Your task to perform on an android device: open wifi settings Image 0: 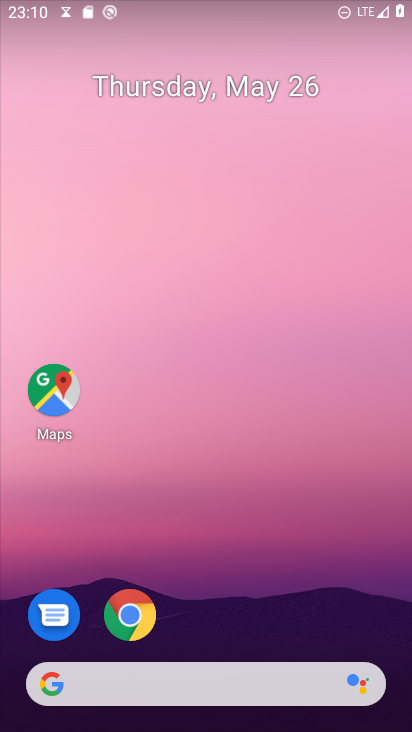
Step 0: drag from (235, 621) to (186, 206)
Your task to perform on an android device: open wifi settings Image 1: 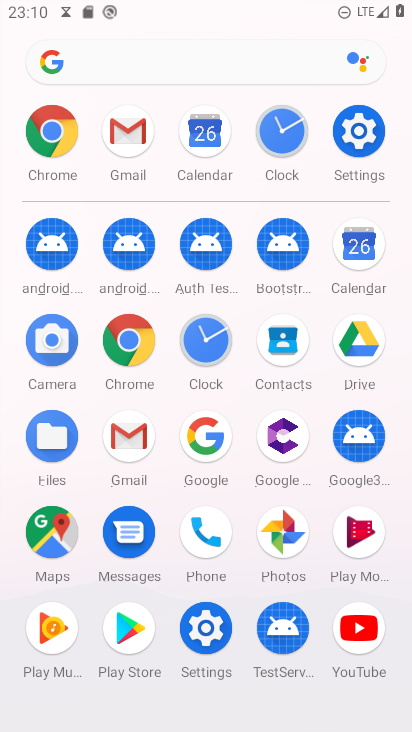
Step 1: click (358, 119)
Your task to perform on an android device: open wifi settings Image 2: 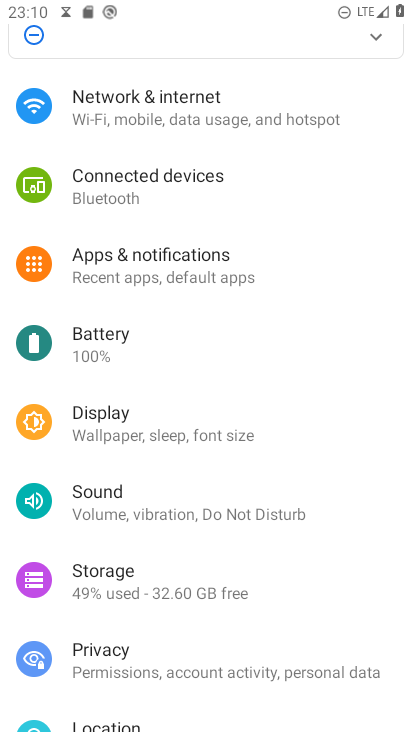
Step 2: click (162, 104)
Your task to perform on an android device: open wifi settings Image 3: 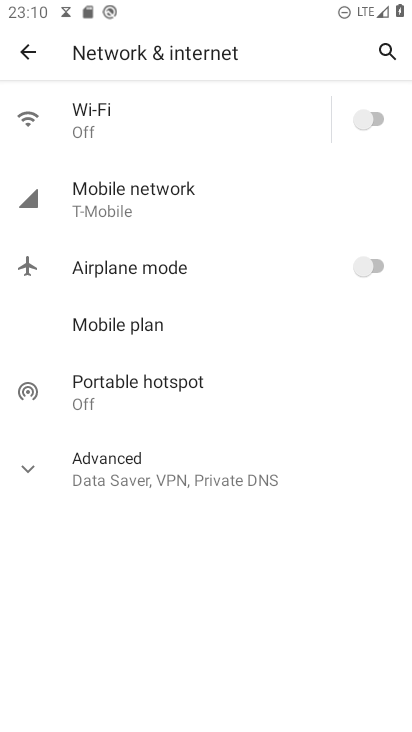
Step 3: task complete